Your task to perform on an android device: Go to wifi settings Image 0: 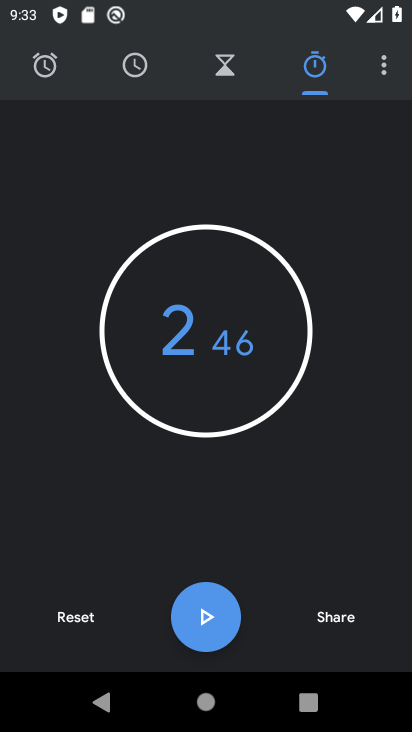
Step 0: press home button
Your task to perform on an android device: Go to wifi settings Image 1: 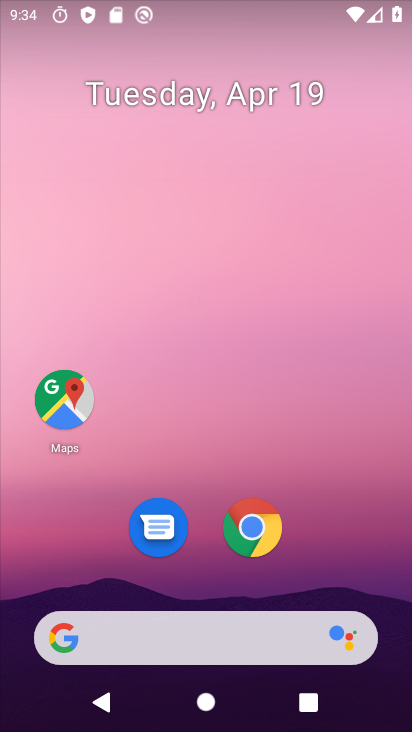
Step 1: drag from (213, 653) to (259, 183)
Your task to perform on an android device: Go to wifi settings Image 2: 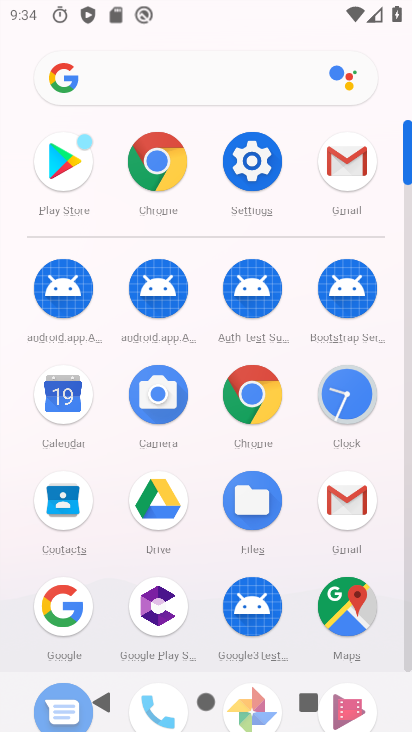
Step 2: click (247, 179)
Your task to perform on an android device: Go to wifi settings Image 3: 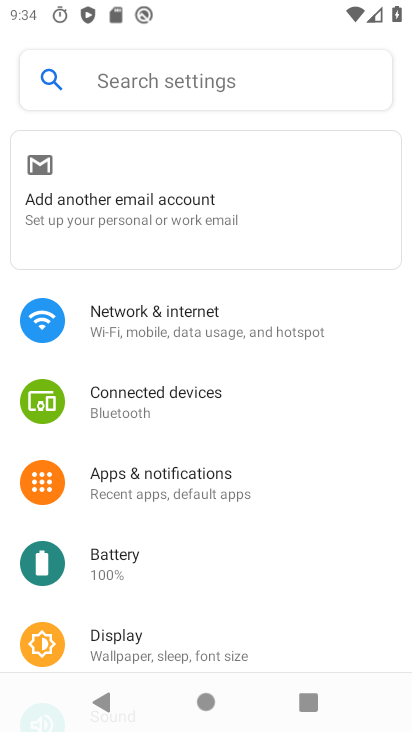
Step 3: click (209, 317)
Your task to perform on an android device: Go to wifi settings Image 4: 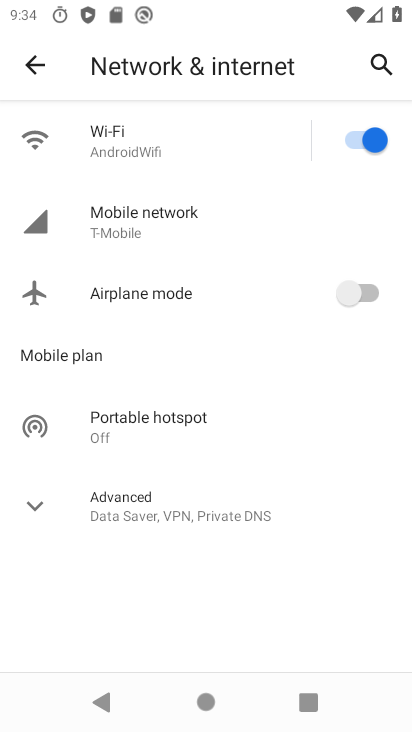
Step 4: click (150, 149)
Your task to perform on an android device: Go to wifi settings Image 5: 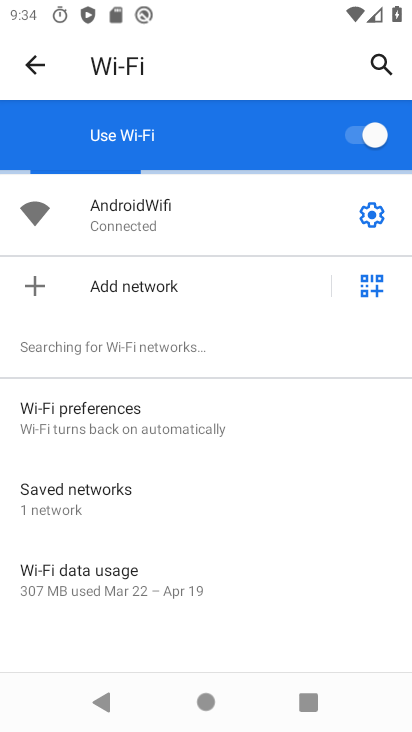
Step 5: task complete